Your task to perform on an android device: Open wifi settings Image 0: 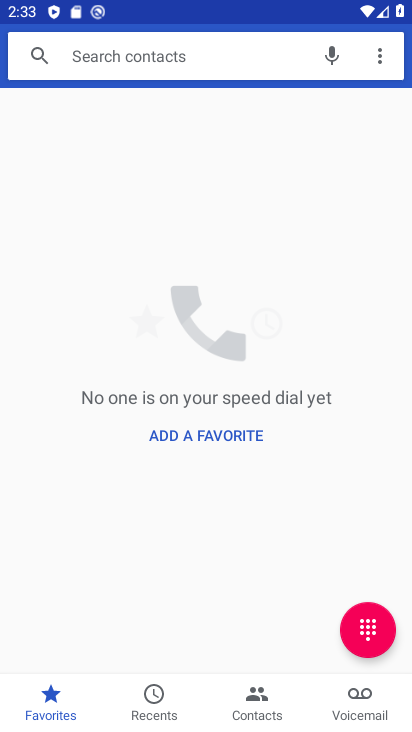
Step 0: drag from (206, 11) to (253, 456)
Your task to perform on an android device: Open wifi settings Image 1: 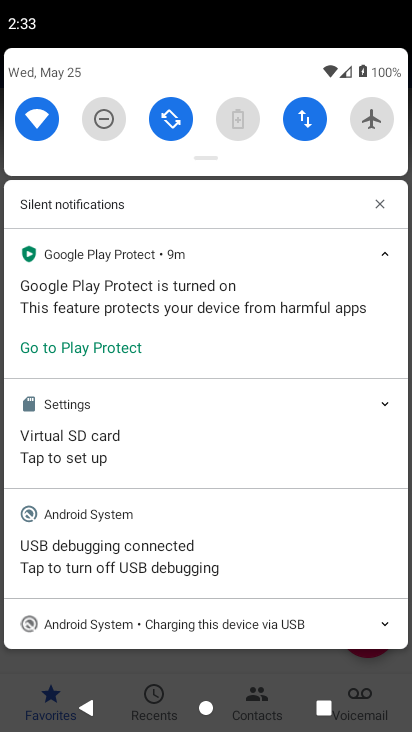
Step 1: click (41, 107)
Your task to perform on an android device: Open wifi settings Image 2: 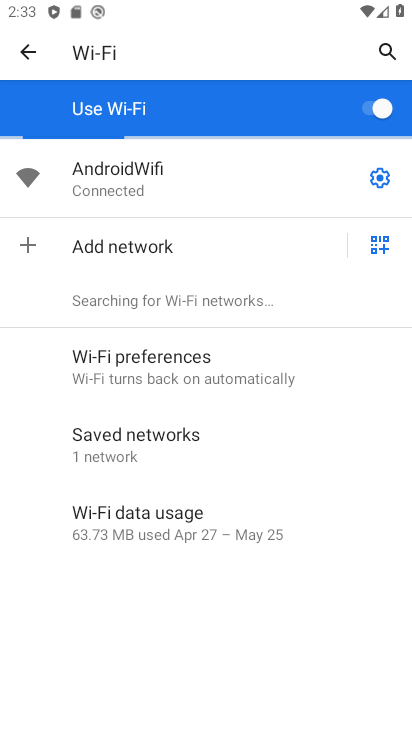
Step 2: task complete